Your task to perform on an android device: Search for sushi restaurants on Maps Image 0: 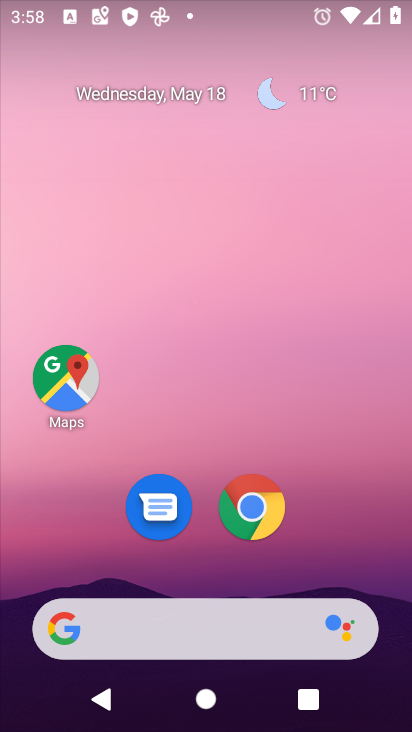
Step 0: click (67, 379)
Your task to perform on an android device: Search for sushi restaurants on Maps Image 1: 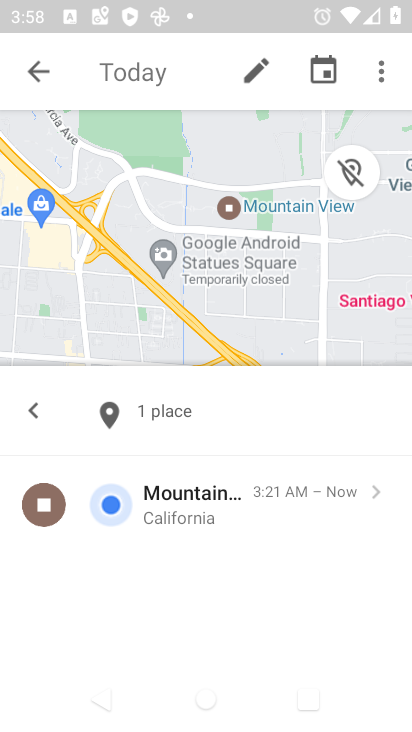
Step 1: press back button
Your task to perform on an android device: Search for sushi restaurants on Maps Image 2: 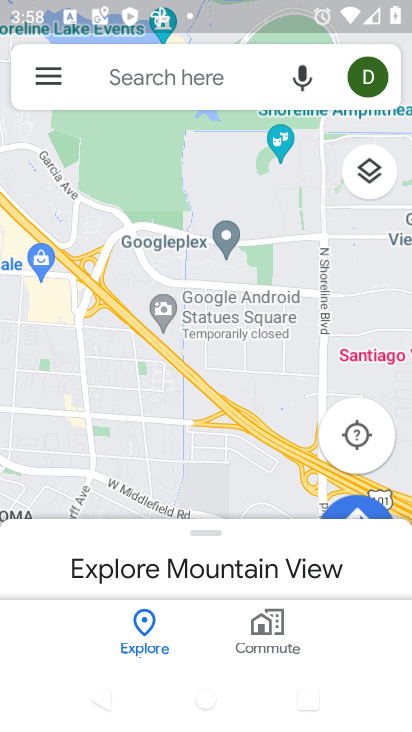
Step 2: click (156, 74)
Your task to perform on an android device: Search for sushi restaurants on Maps Image 3: 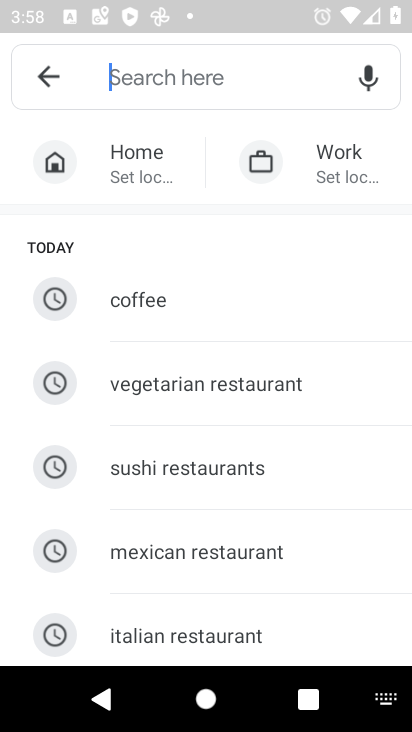
Step 3: type "sushi restaurants"
Your task to perform on an android device: Search for sushi restaurants on Maps Image 4: 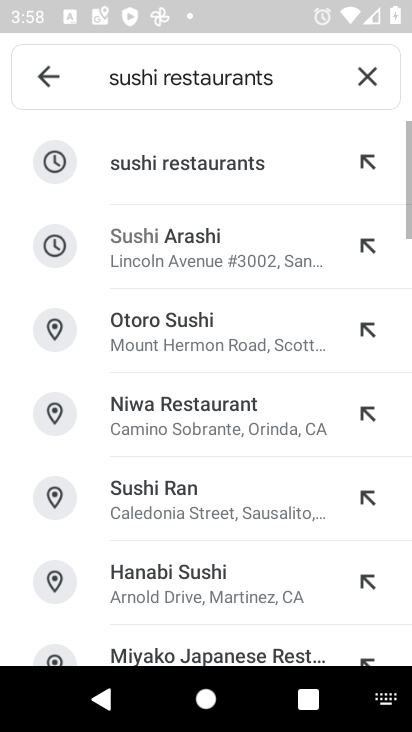
Step 4: click (171, 152)
Your task to perform on an android device: Search for sushi restaurants on Maps Image 5: 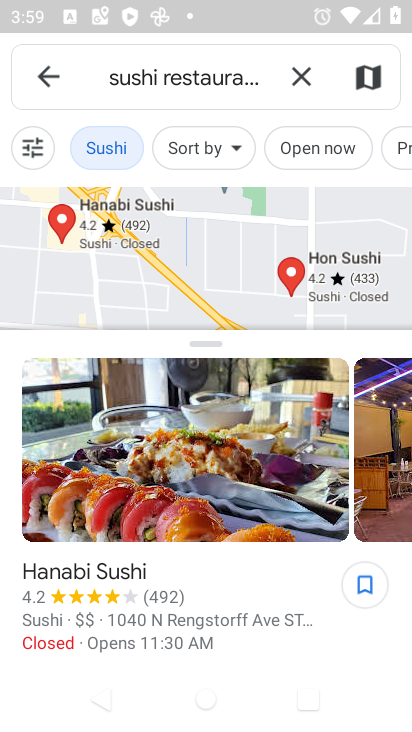
Step 5: task complete